Your task to perform on an android device: change the clock style Image 0: 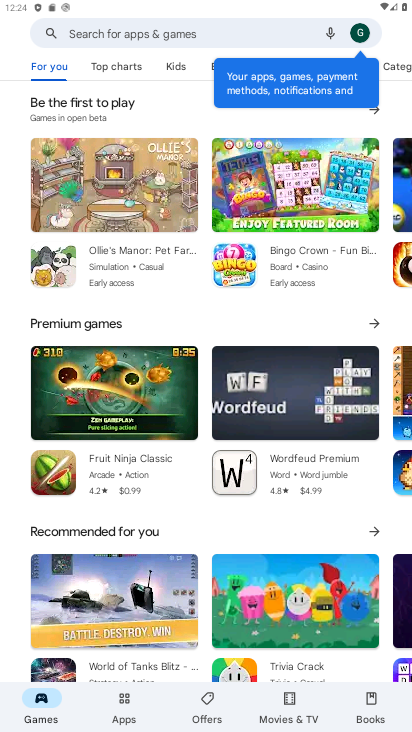
Step 0: press home button
Your task to perform on an android device: change the clock style Image 1: 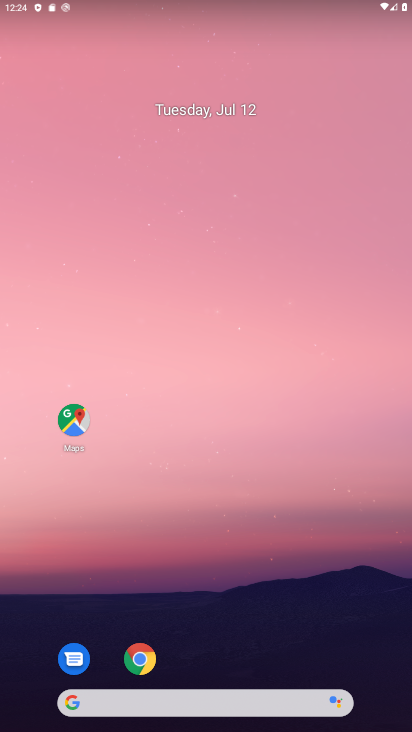
Step 1: drag from (295, 725) to (284, 70)
Your task to perform on an android device: change the clock style Image 2: 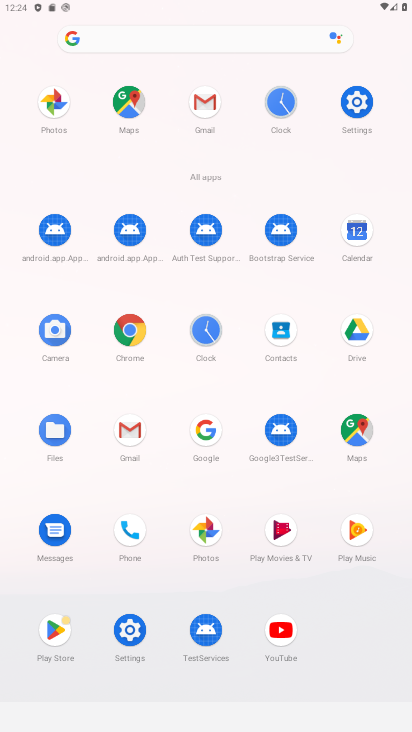
Step 2: click (206, 335)
Your task to perform on an android device: change the clock style Image 3: 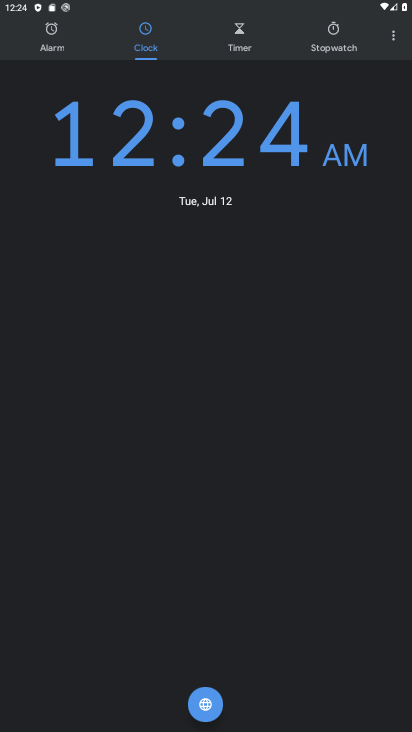
Step 3: click (394, 40)
Your task to perform on an android device: change the clock style Image 4: 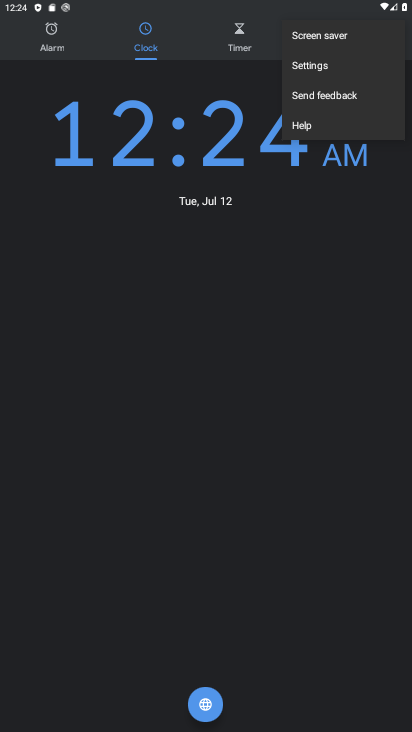
Step 4: click (305, 64)
Your task to perform on an android device: change the clock style Image 5: 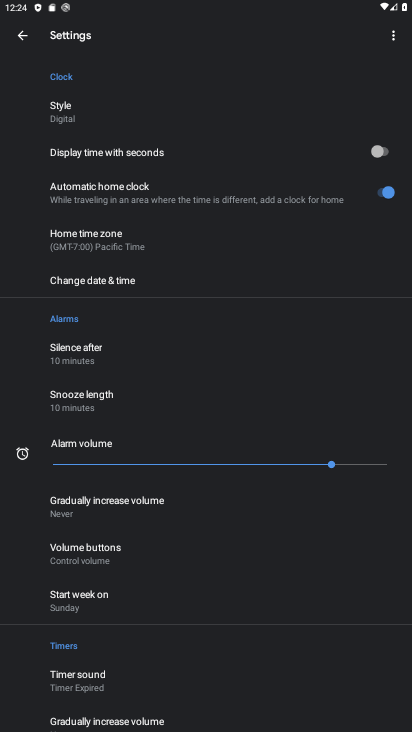
Step 5: click (64, 116)
Your task to perform on an android device: change the clock style Image 6: 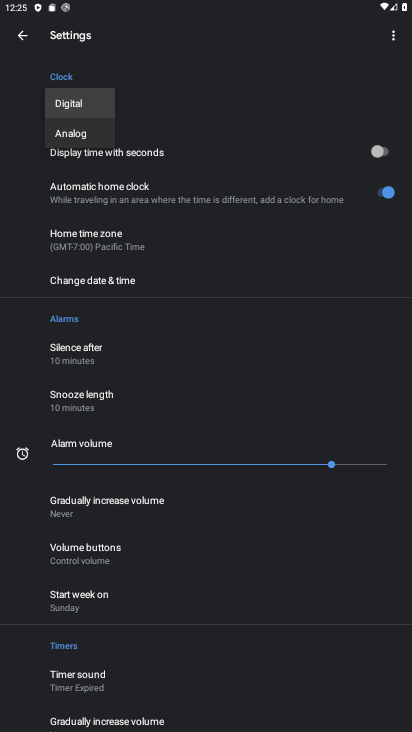
Step 6: click (85, 127)
Your task to perform on an android device: change the clock style Image 7: 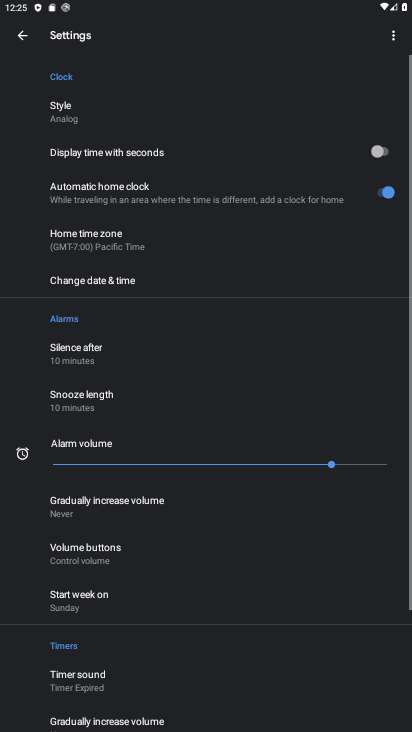
Step 7: task complete